Your task to perform on an android device: What's US dollar exchange rate against the Chinese Yuan? Image 0: 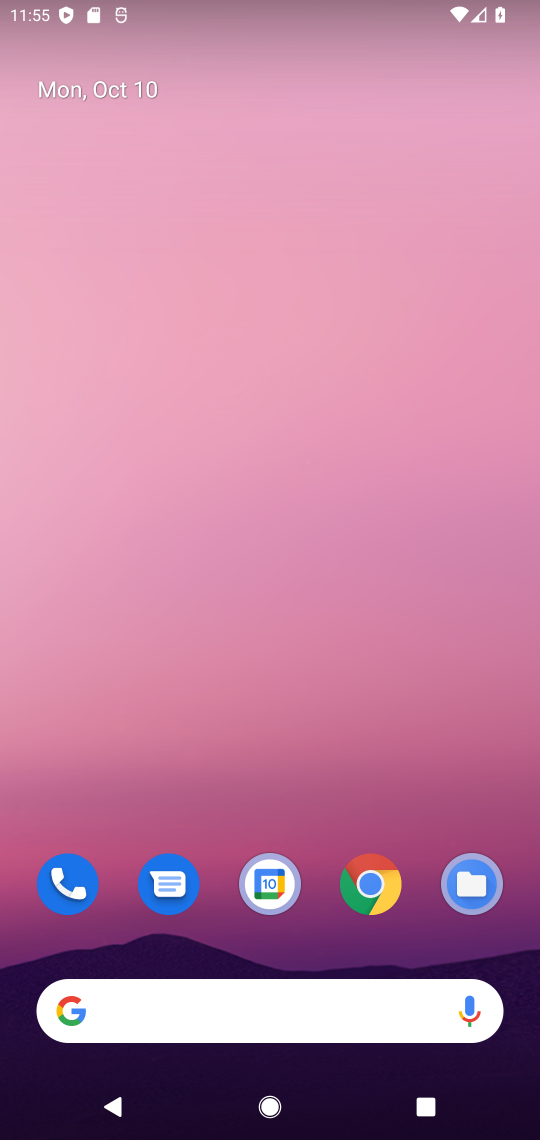
Step 0: click (357, 896)
Your task to perform on an android device: What's US dollar exchange rate against the Chinese Yuan? Image 1: 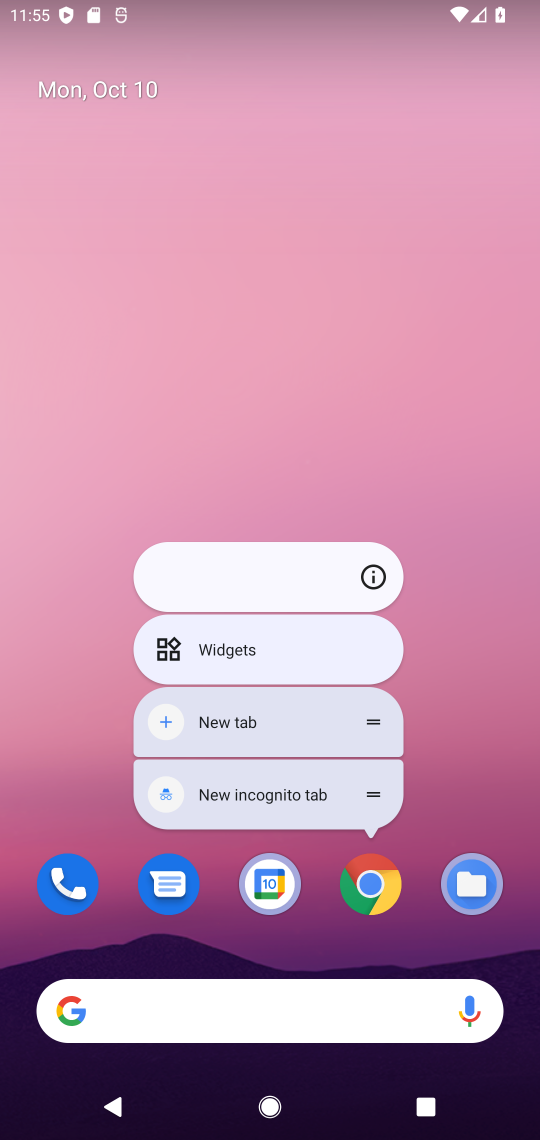
Step 1: click (374, 895)
Your task to perform on an android device: What's US dollar exchange rate against the Chinese Yuan? Image 2: 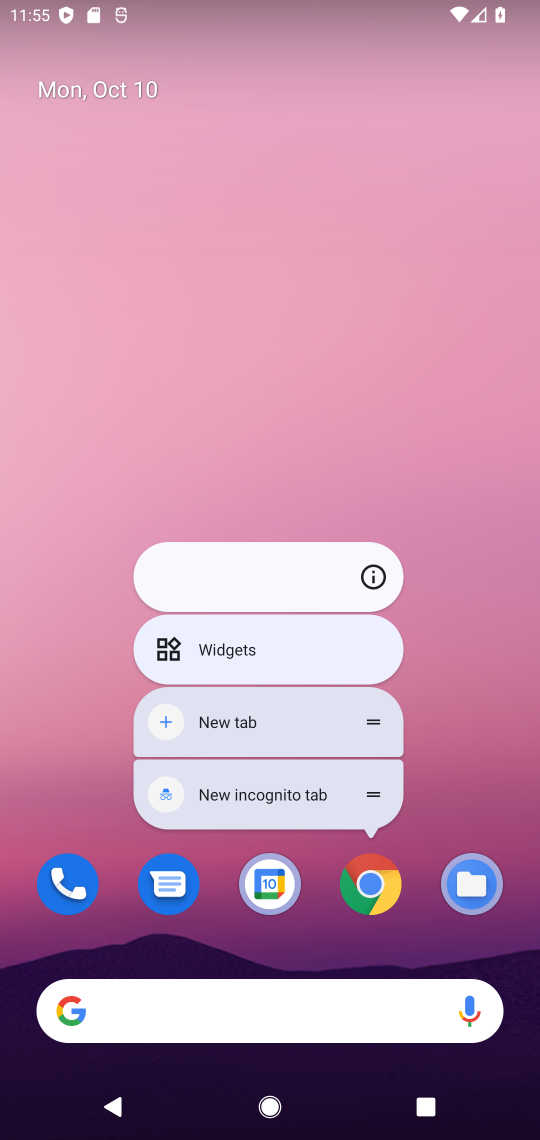
Step 2: click (388, 902)
Your task to perform on an android device: What's US dollar exchange rate against the Chinese Yuan? Image 3: 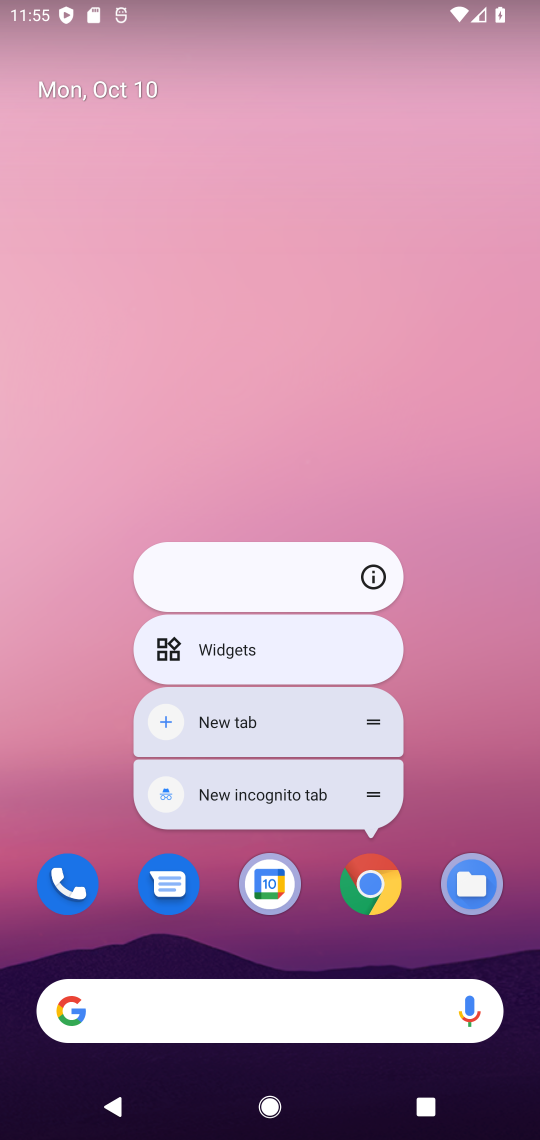
Step 3: click (357, 891)
Your task to perform on an android device: What's US dollar exchange rate against the Chinese Yuan? Image 4: 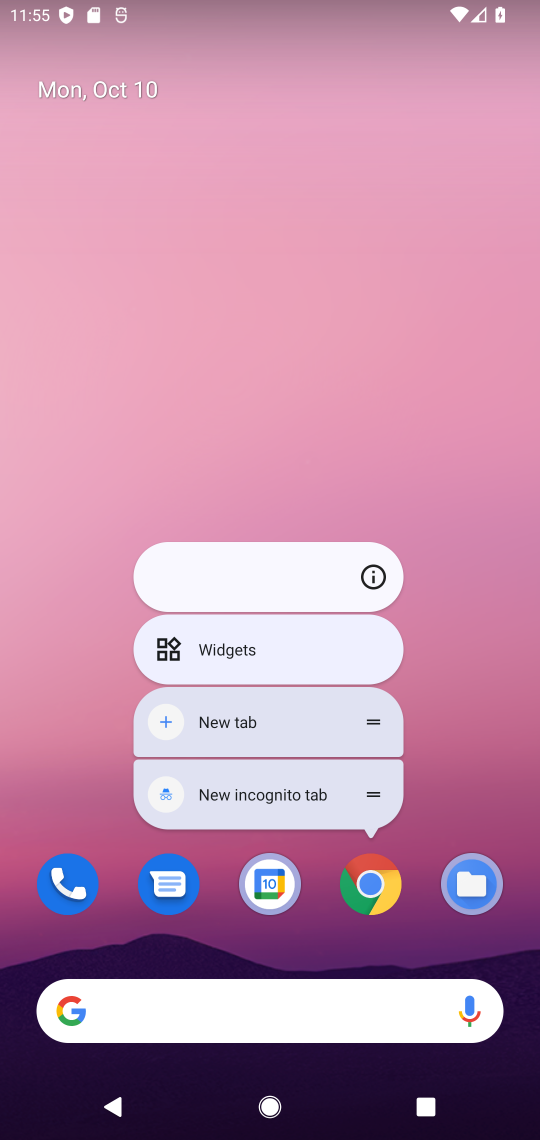
Step 4: click (366, 901)
Your task to perform on an android device: What's US dollar exchange rate against the Chinese Yuan? Image 5: 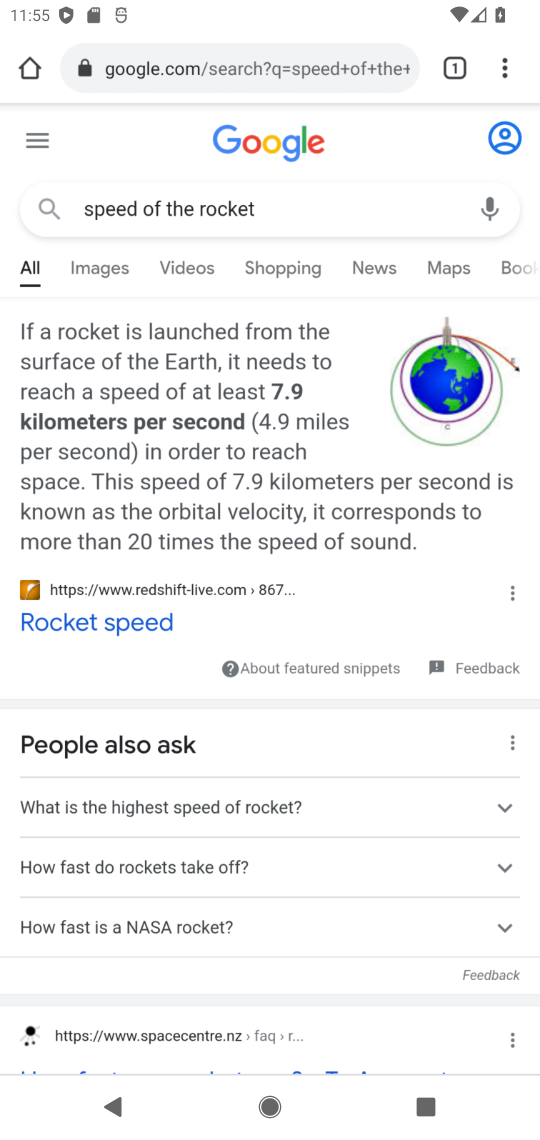
Step 5: click (371, 893)
Your task to perform on an android device: What's US dollar exchange rate against the Chinese Yuan? Image 6: 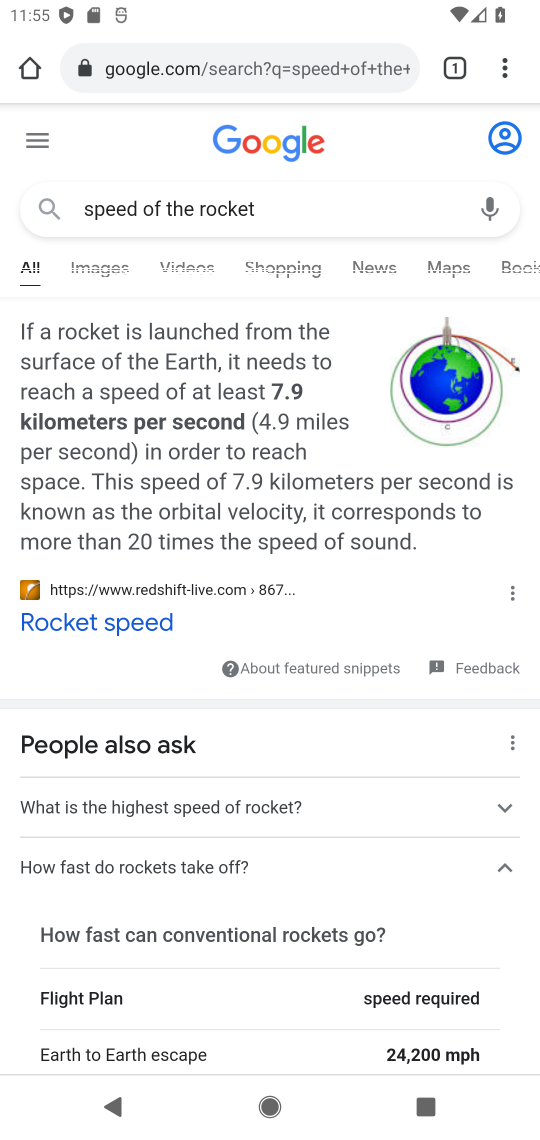
Step 6: click (268, 40)
Your task to perform on an android device: What's US dollar exchange rate against the Chinese Yuan? Image 7: 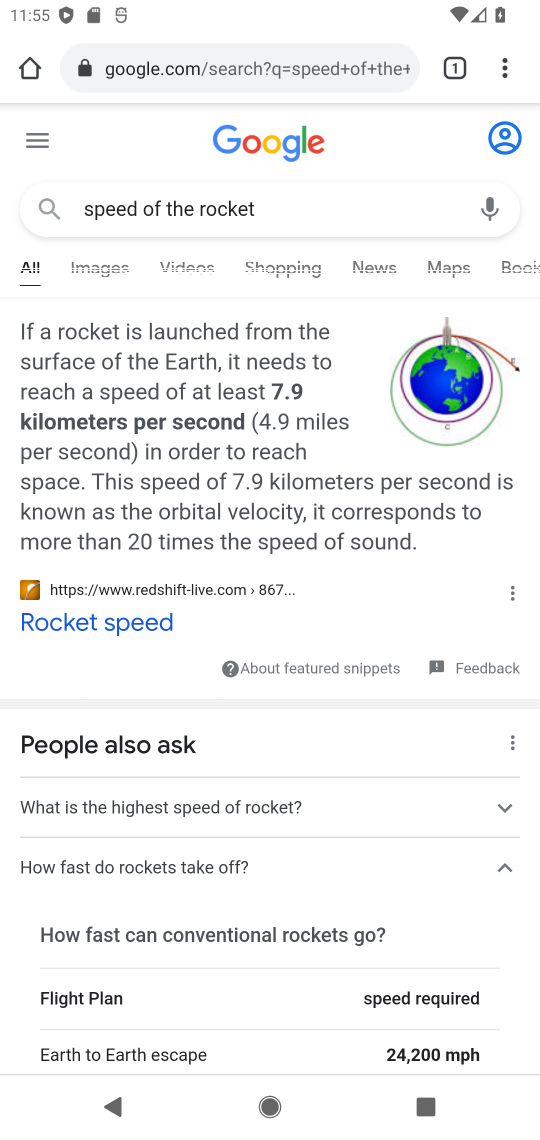
Step 7: click (269, 71)
Your task to perform on an android device: What's US dollar exchange rate against the Chinese Yuan? Image 8: 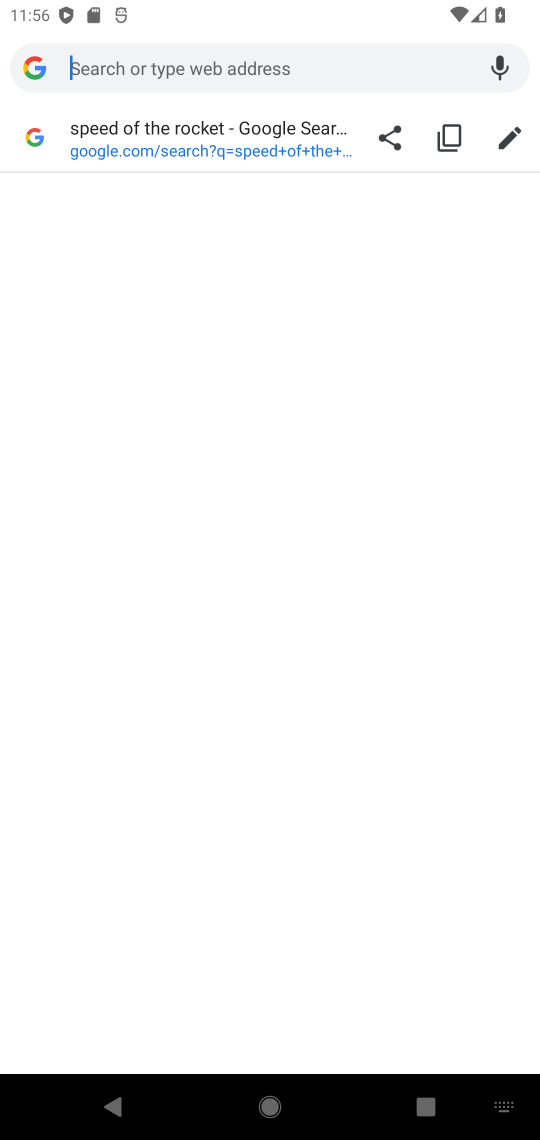
Step 8: type "us dollar exchange rate against the chinese Yuan"
Your task to perform on an android device: What's US dollar exchange rate against the Chinese Yuan? Image 9: 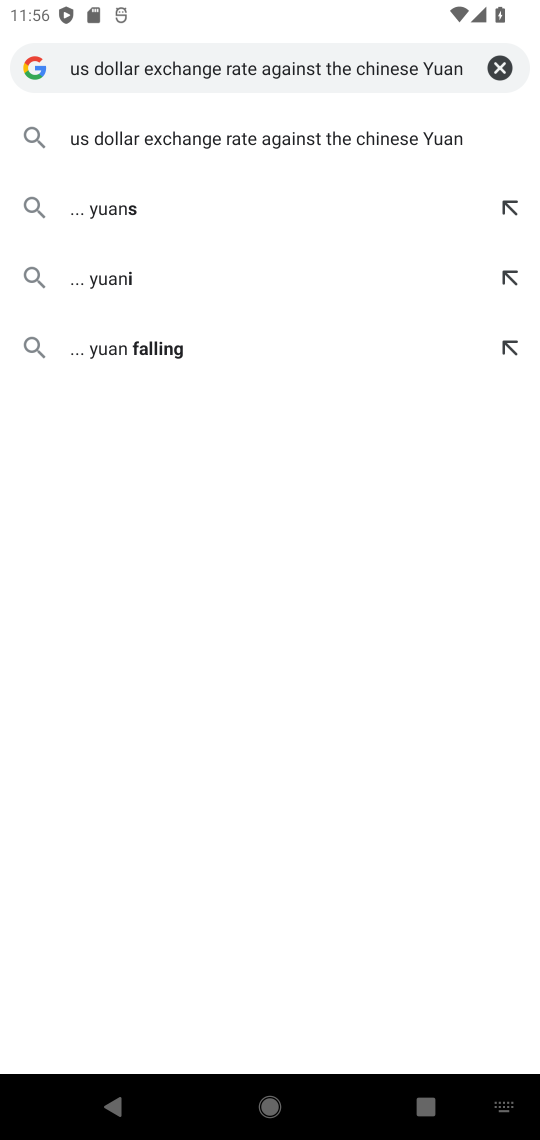
Step 9: press enter
Your task to perform on an android device: What's US dollar exchange rate against the Chinese Yuan? Image 10: 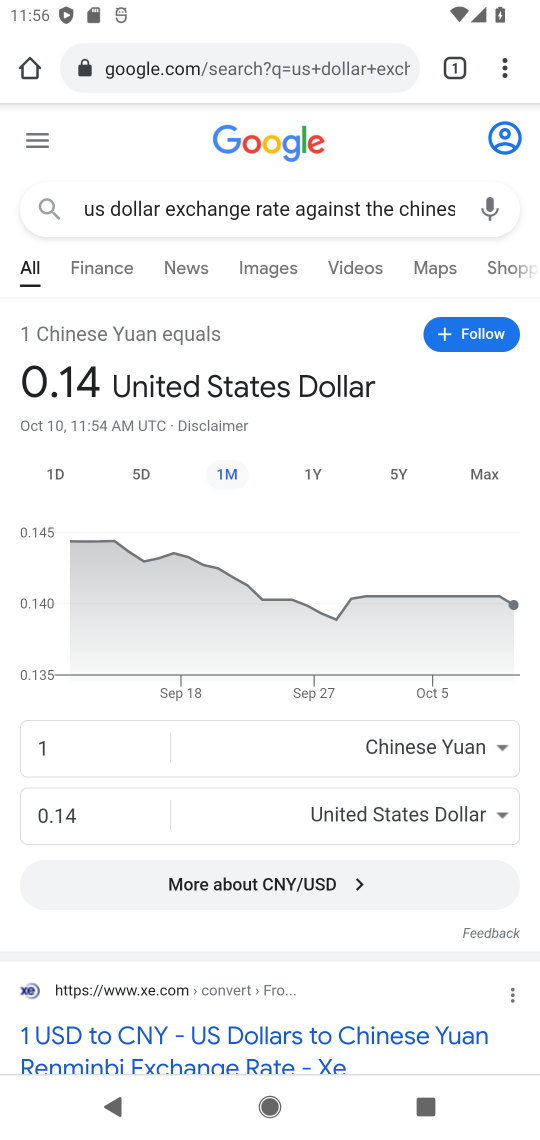
Step 10: drag from (354, 911) to (345, 742)
Your task to perform on an android device: What's US dollar exchange rate against the Chinese Yuan? Image 11: 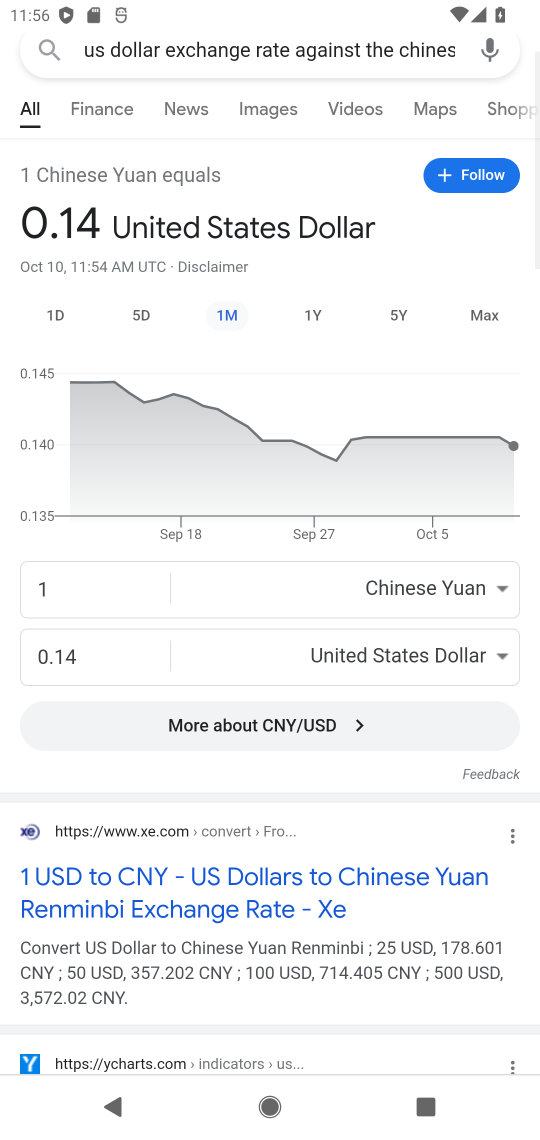
Step 11: click (377, 979)
Your task to perform on an android device: What's US dollar exchange rate against the Chinese Yuan? Image 12: 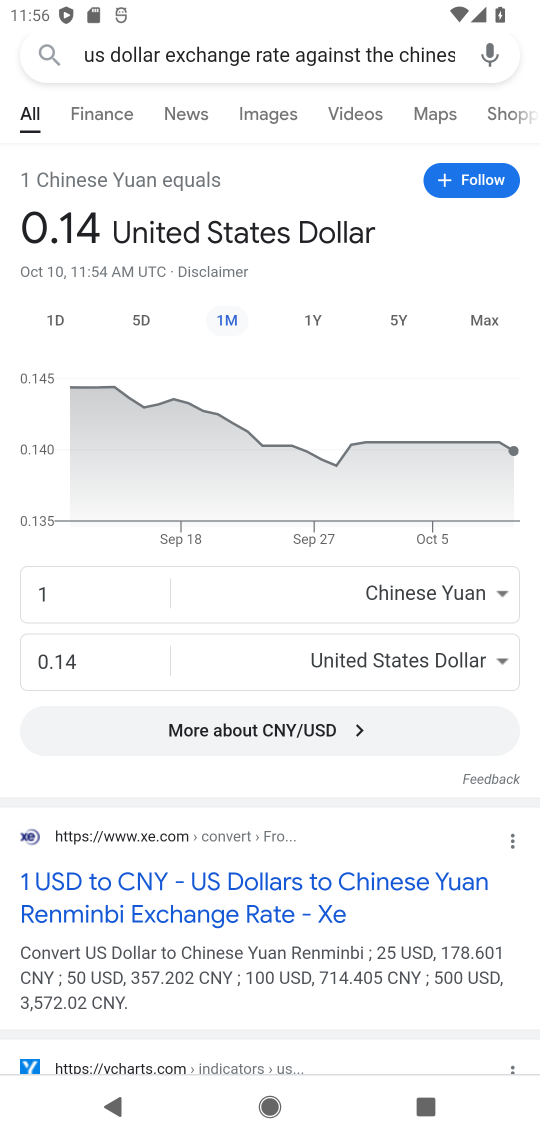
Step 12: task complete